Your task to perform on an android device: toggle translation in the chrome app Image 0: 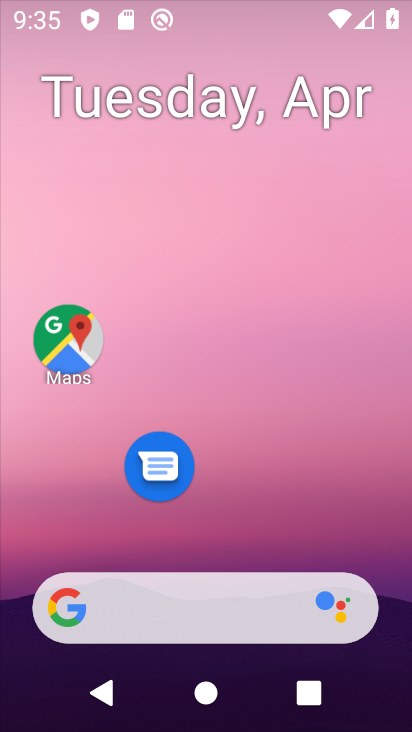
Step 0: drag from (238, 484) to (238, 241)
Your task to perform on an android device: toggle translation in the chrome app Image 1: 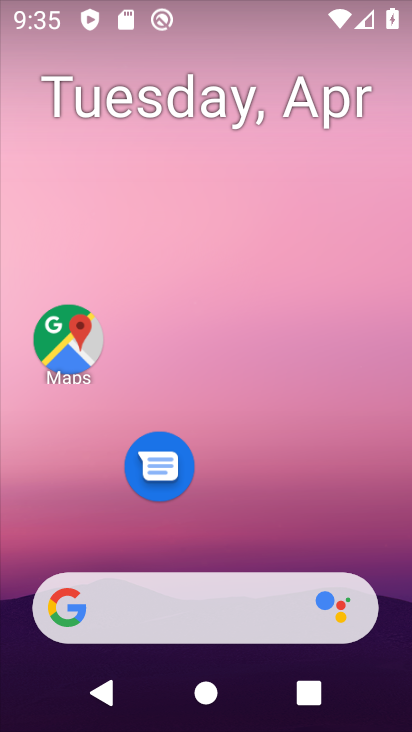
Step 1: task complete